Your task to perform on an android device: toggle priority inbox in the gmail app Image 0: 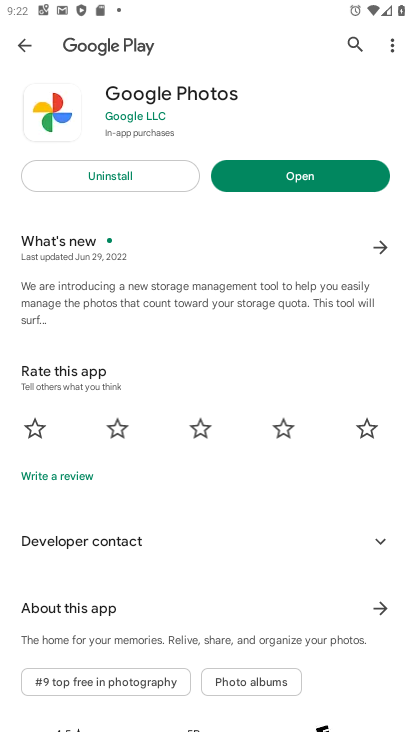
Step 0: press home button
Your task to perform on an android device: toggle priority inbox in the gmail app Image 1: 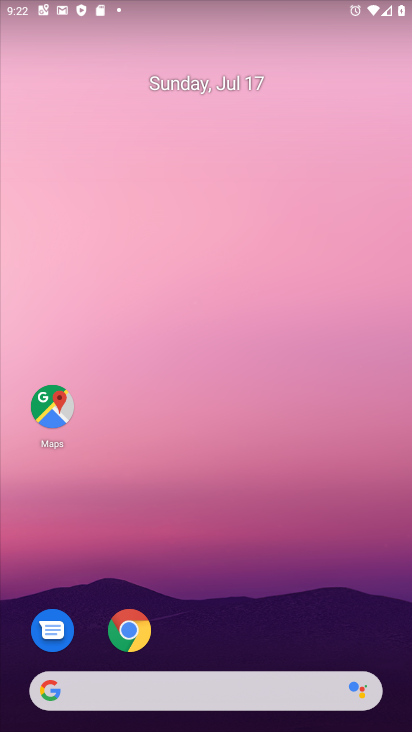
Step 1: drag from (327, 613) to (358, 82)
Your task to perform on an android device: toggle priority inbox in the gmail app Image 2: 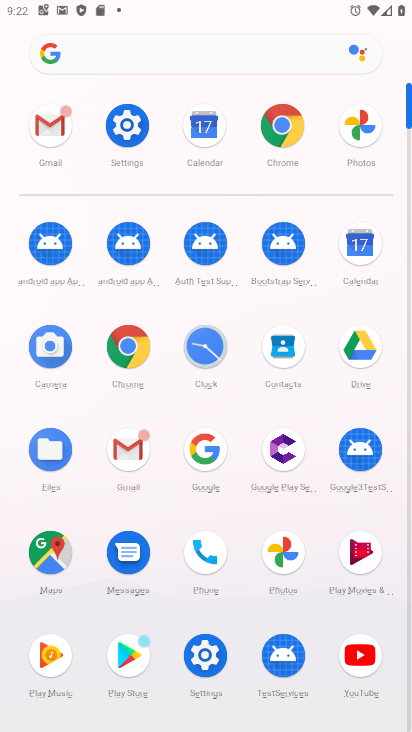
Step 2: click (138, 449)
Your task to perform on an android device: toggle priority inbox in the gmail app Image 3: 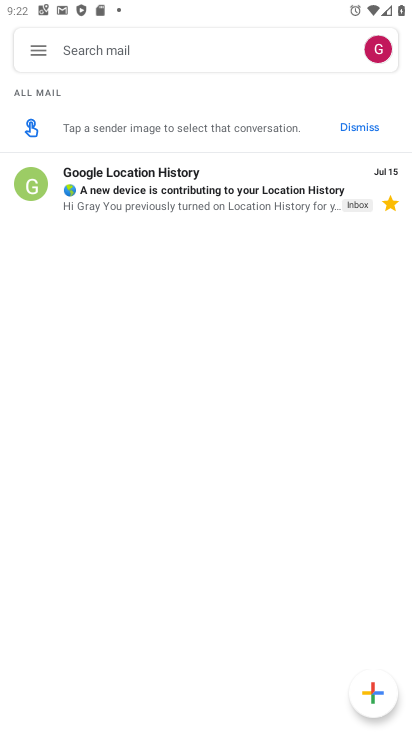
Step 3: click (37, 50)
Your task to perform on an android device: toggle priority inbox in the gmail app Image 4: 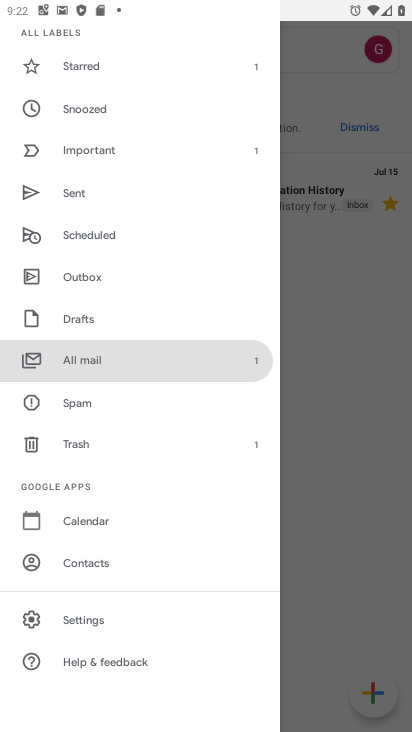
Step 4: click (148, 618)
Your task to perform on an android device: toggle priority inbox in the gmail app Image 5: 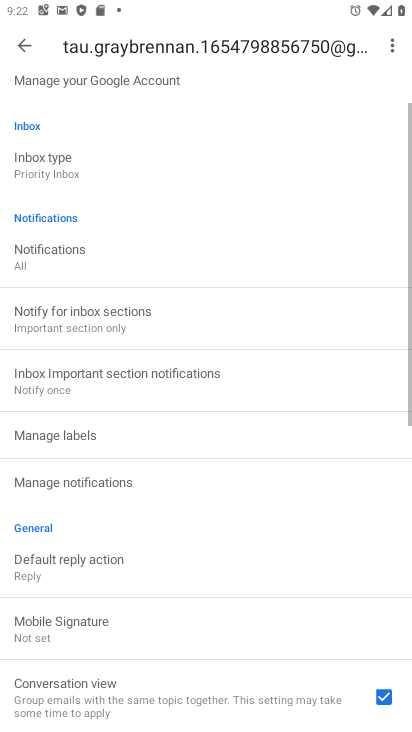
Step 5: task complete